Your task to perform on an android device: Open network settings Image 0: 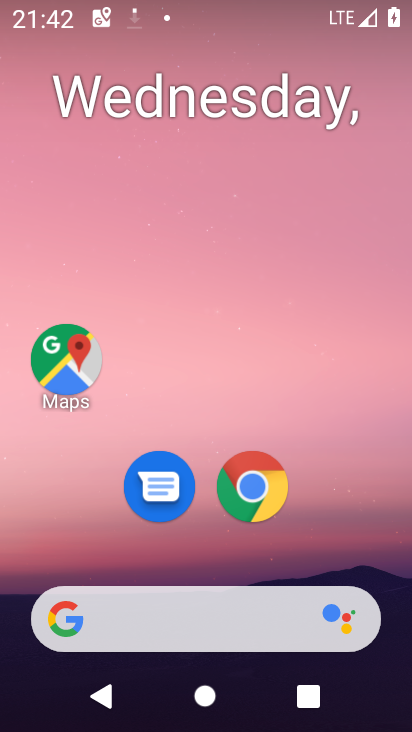
Step 0: drag from (171, 560) to (269, 33)
Your task to perform on an android device: Open network settings Image 1: 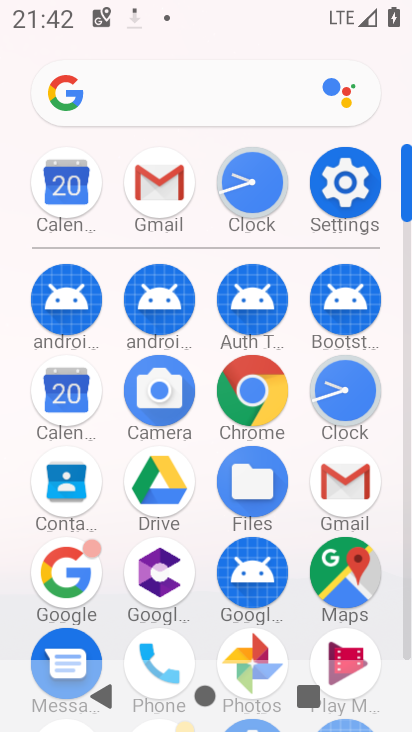
Step 1: click (365, 188)
Your task to perform on an android device: Open network settings Image 2: 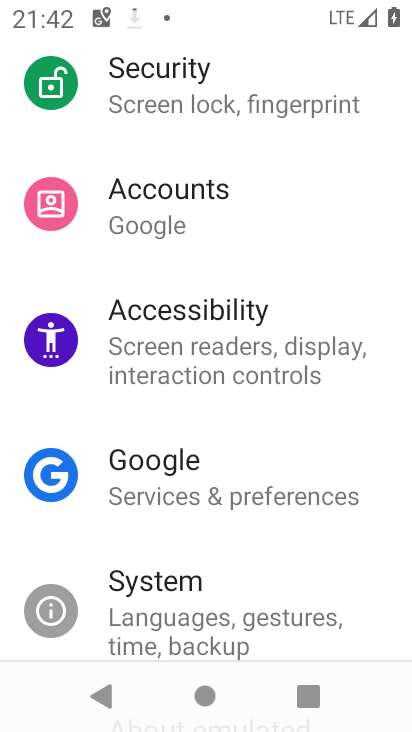
Step 2: drag from (240, 196) to (151, 664)
Your task to perform on an android device: Open network settings Image 3: 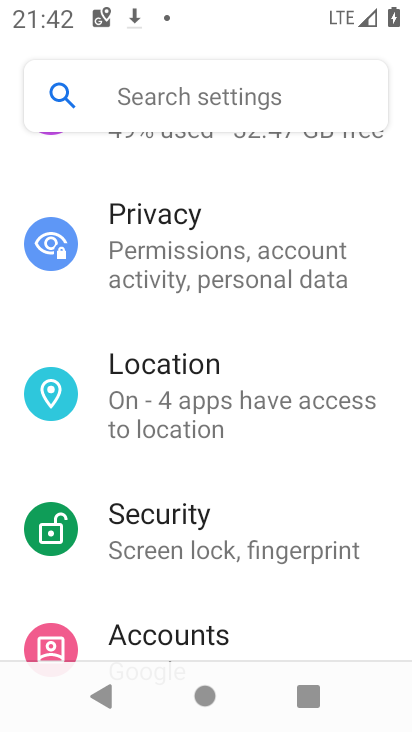
Step 3: drag from (226, 225) to (160, 665)
Your task to perform on an android device: Open network settings Image 4: 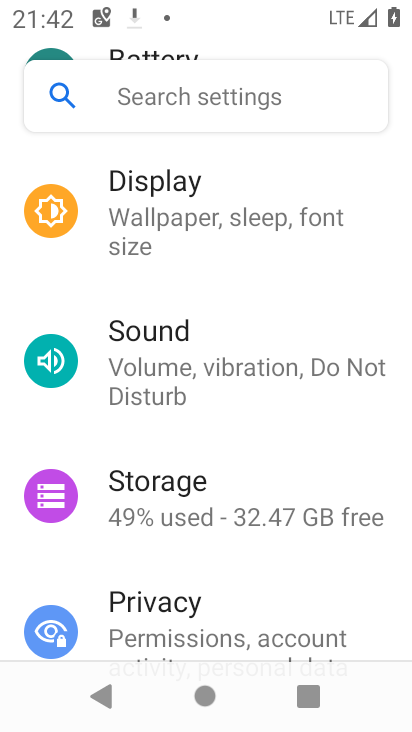
Step 4: drag from (242, 228) to (105, 633)
Your task to perform on an android device: Open network settings Image 5: 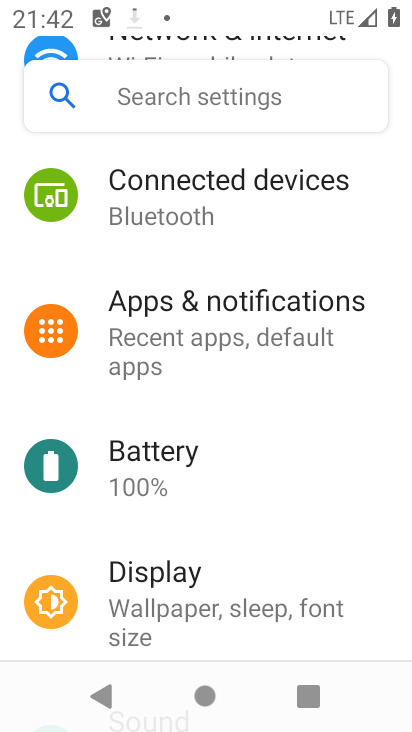
Step 5: drag from (179, 228) to (159, 621)
Your task to perform on an android device: Open network settings Image 6: 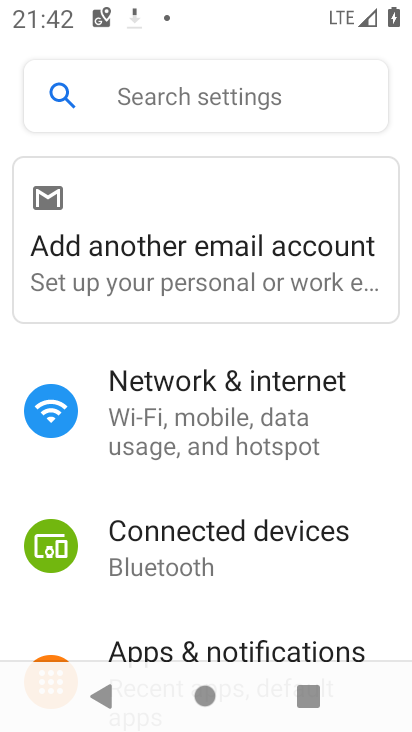
Step 6: click (170, 391)
Your task to perform on an android device: Open network settings Image 7: 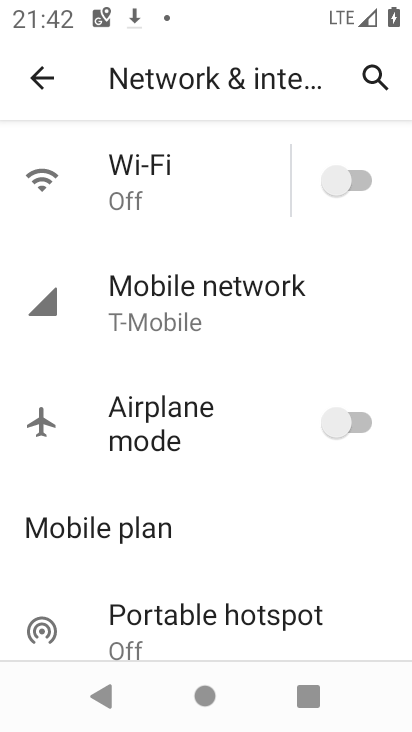
Step 7: task complete